Your task to perform on an android device: change alarm snooze length Image 0: 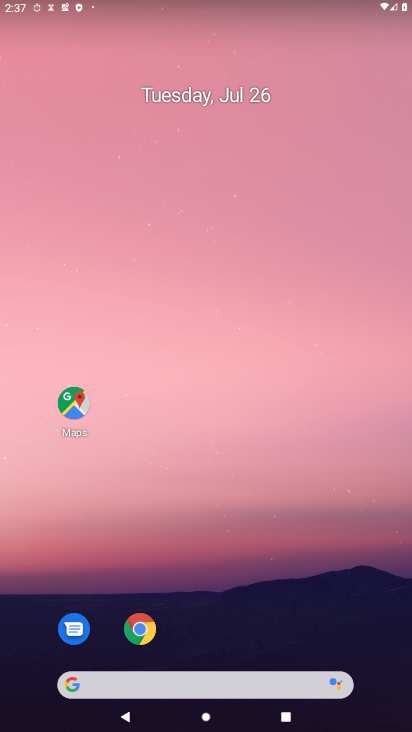
Step 0: drag from (304, 694) to (299, 26)
Your task to perform on an android device: change alarm snooze length Image 1: 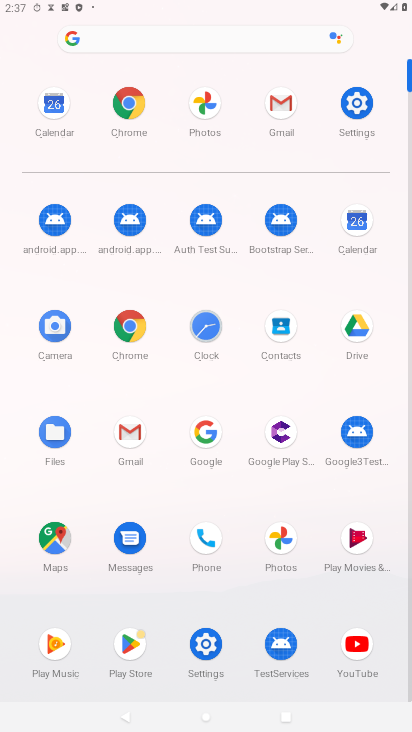
Step 1: click (203, 330)
Your task to perform on an android device: change alarm snooze length Image 2: 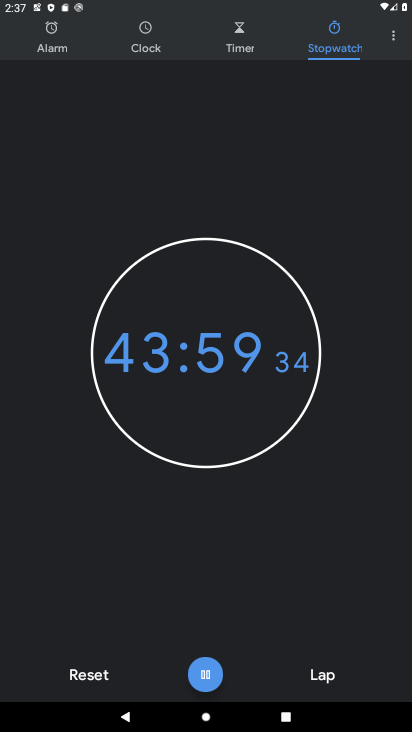
Step 2: click (389, 34)
Your task to perform on an android device: change alarm snooze length Image 3: 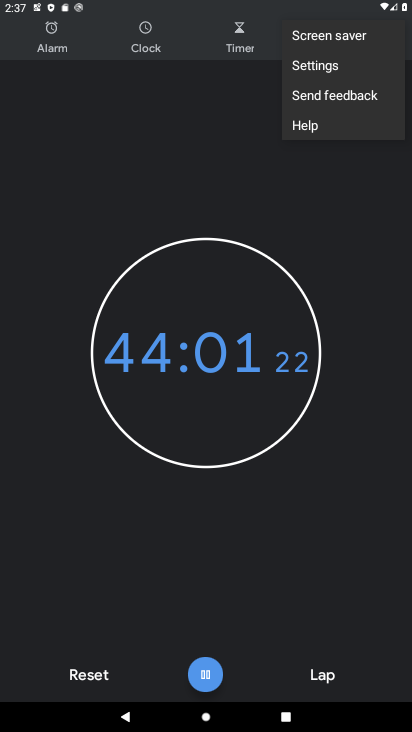
Step 3: click (338, 60)
Your task to perform on an android device: change alarm snooze length Image 4: 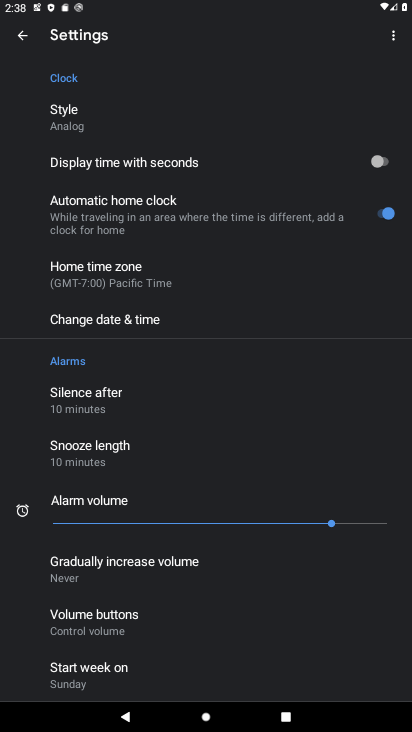
Step 4: click (131, 454)
Your task to perform on an android device: change alarm snooze length Image 5: 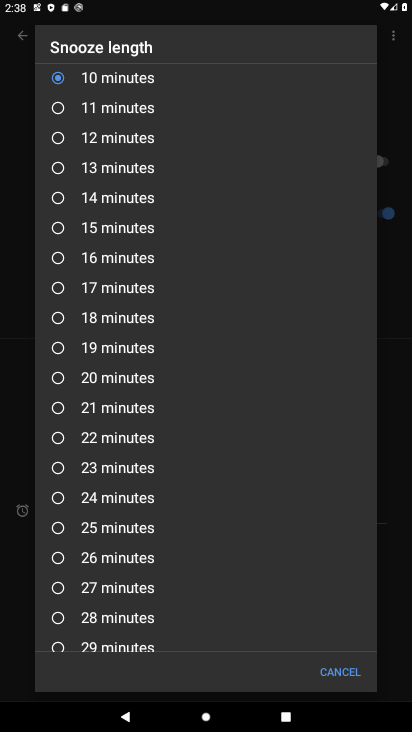
Step 5: task complete